Your task to perform on an android device: choose inbox layout in the gmail app Image 0: 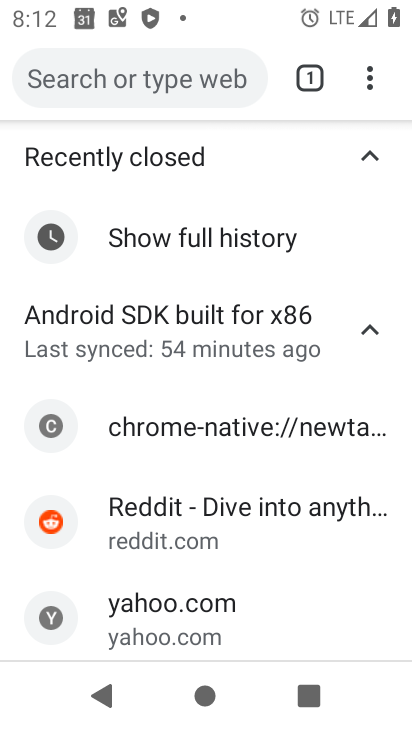
Step 0: press home button
Your task to perform on an android device: choose inbox layout in the gmail app Image 1: 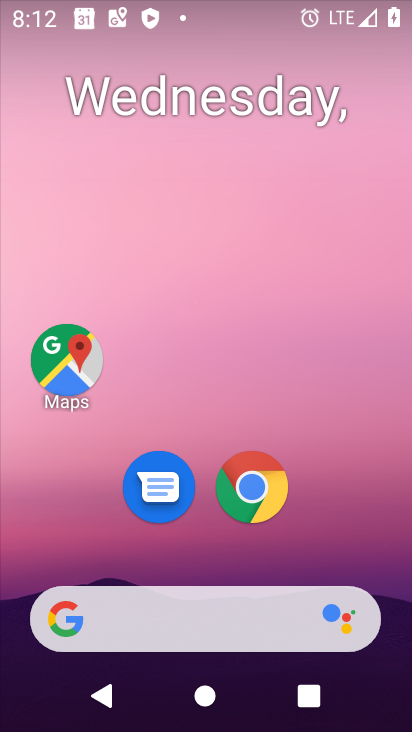
Step 1: drag from (388, 572) to (349, 1)
Your task to perform on an android device: choose inbox layout in the gmail app Image 2: 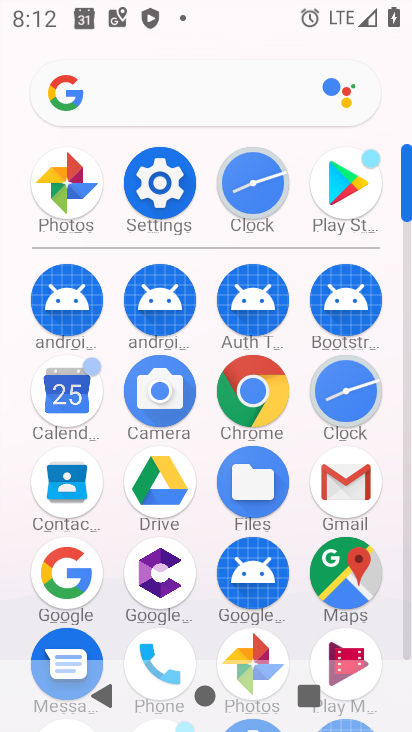
Step 2: click (352, 488)
Your task to perform on an android device: choose inbox layout in the gmail app Image 3: 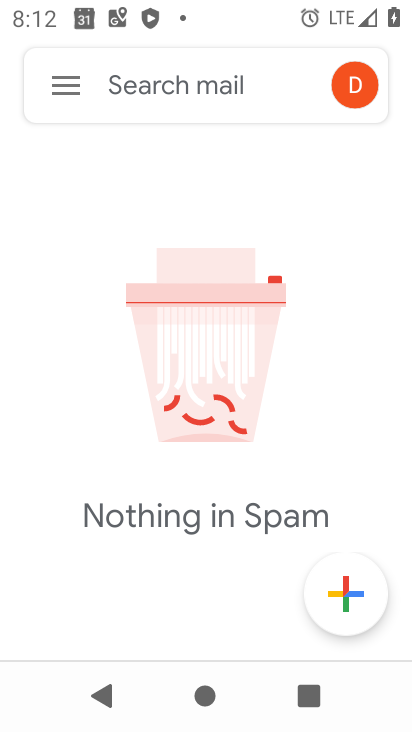
Step 3: click (61, 92)
Your task to perform on an android device: choose inbox layout in the gmail app Image 4: 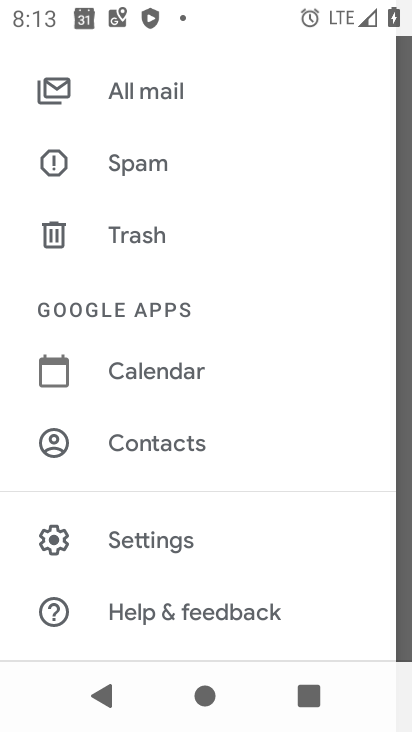
Step 4: click (170, 542)
Your task to perform on an android device: choose inbox layout in the gmail app Image 5: 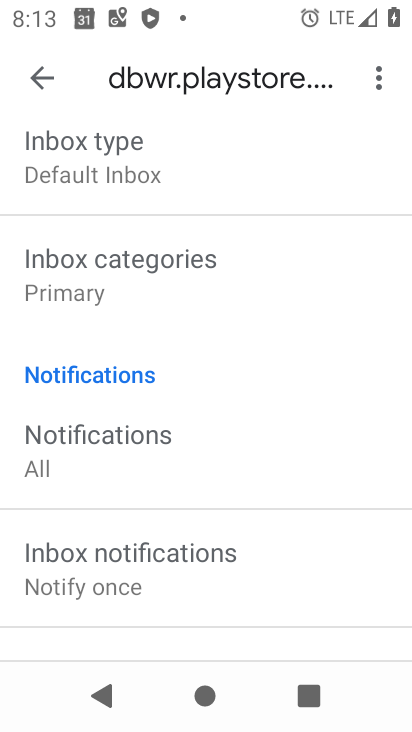
Step 5: click (59, 171)
Your task to perform on an android device: choose inbox layout in the gmail app Image 6: 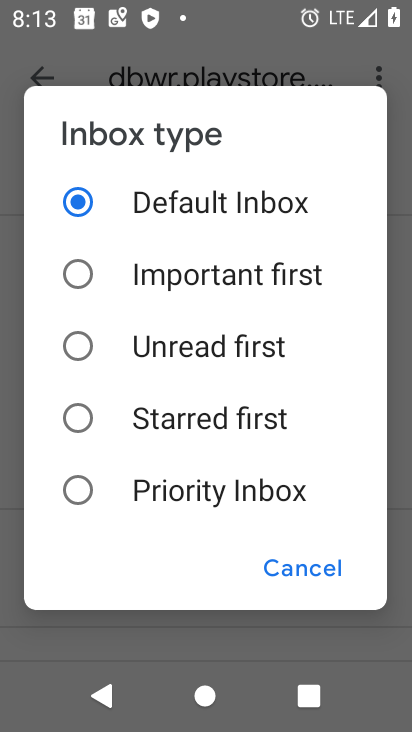
Step 6: click (78, 407)
Your task to perform on an android device: choose inbox layout in the gmail app Image 7: 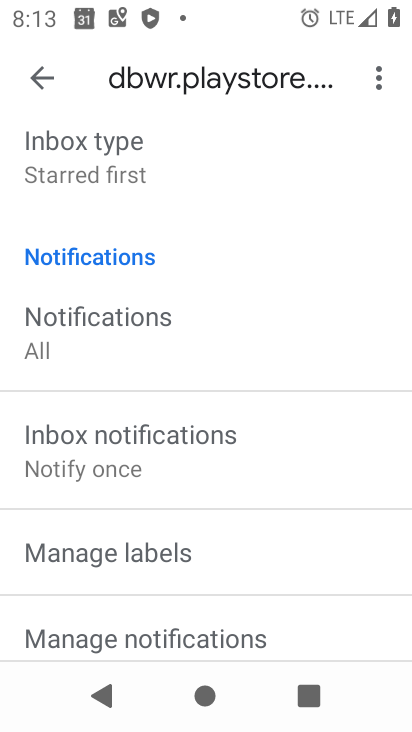
Step 7: task complete